Your task to perform on an android device: search for starred emails in the gmail app Image 0: 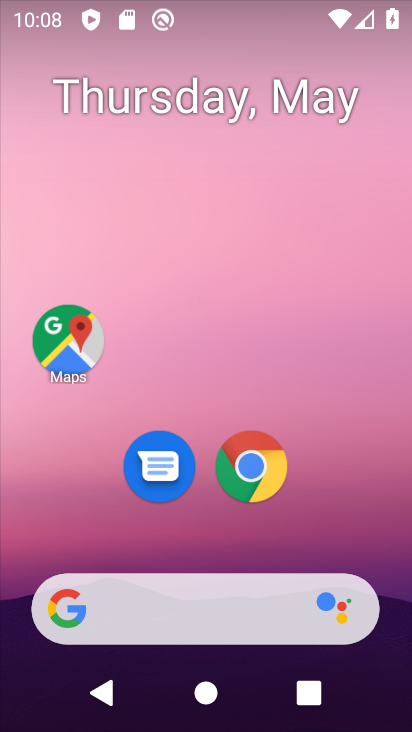
Step 0: drag from (358, 466) to (317, 13)
Your task to perform on an android device: search for starred emails in the gmail app Image 1: 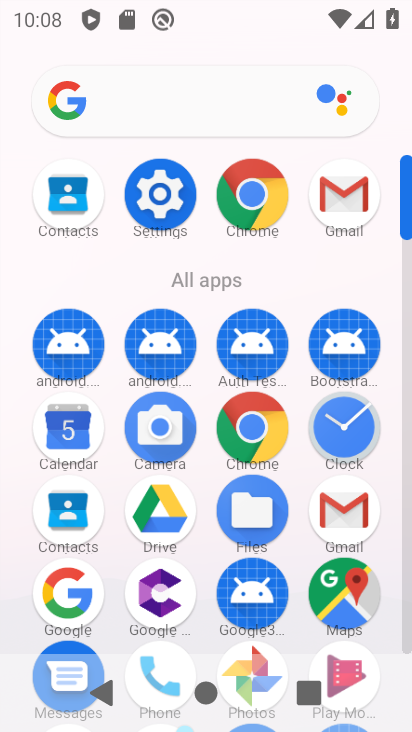
Step 1: click (347, 201)
Your task to perform on an android device: search for starred emails in the gmail app Image 2: 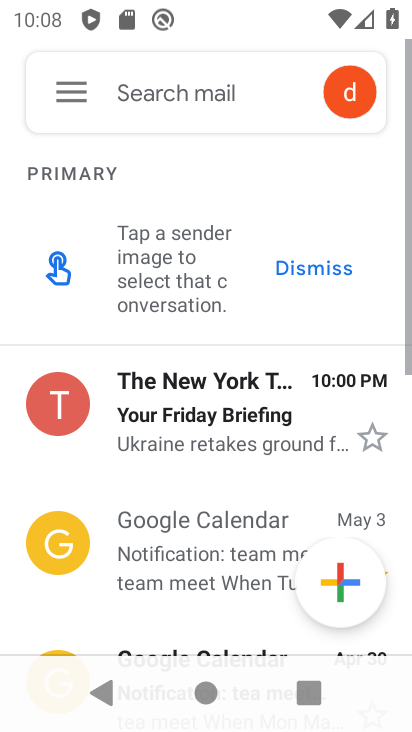
Step 2: click (69, 77)
Your task to perform on an android device: search for starred emails in the gmail app Image 3: 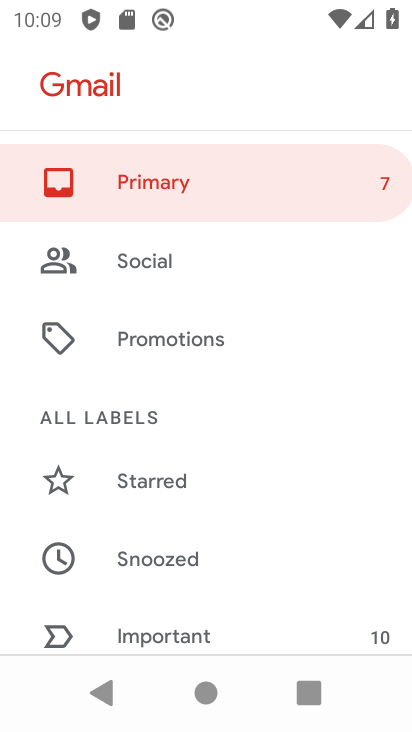
Step 3: click (168, 477)
Your task to perform on an android device: search for starred emails in the gmail app Image 4: 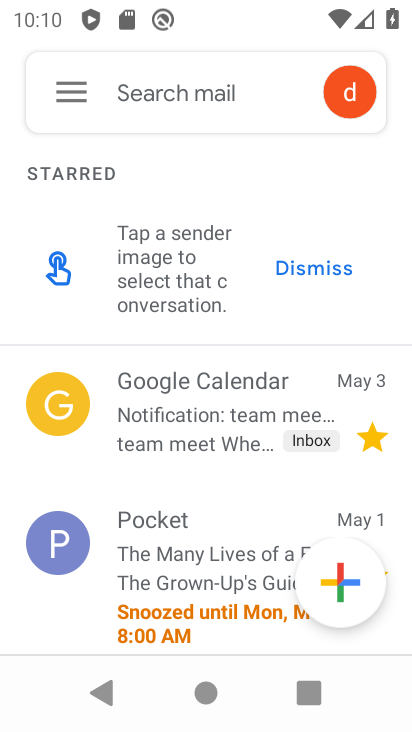
Step 4: task complete